Your task to perform on an android device: What's on my calendar today? Image 0: 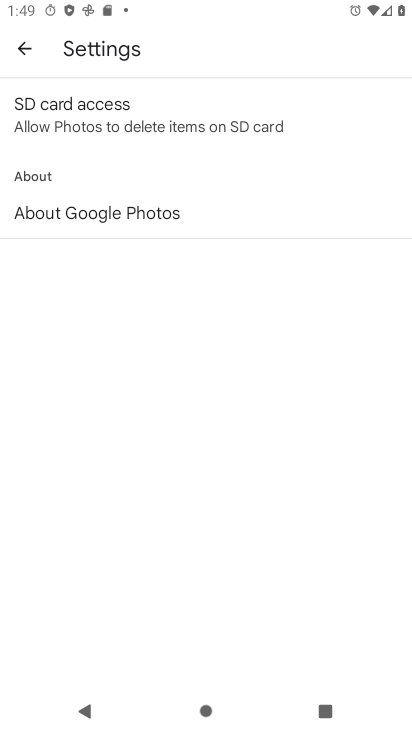
Step 0: press home button
Your task to perform on an android device: What's on my calendar today? Image 1: 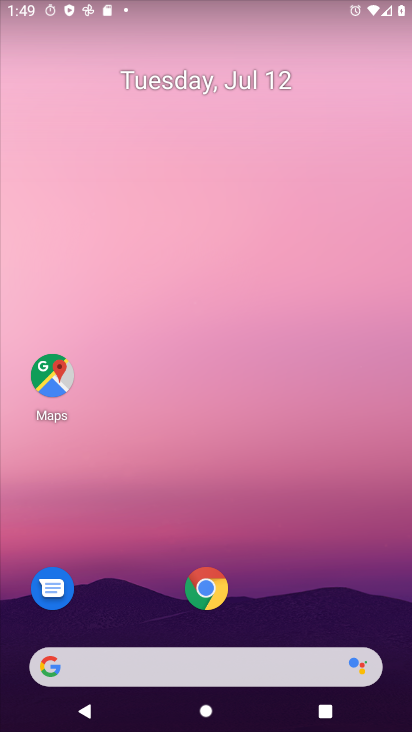
Step 1: drag from (186, 670) to (376, 120)
Your task to perform on an android device: What's on my calendar today? Image 2: 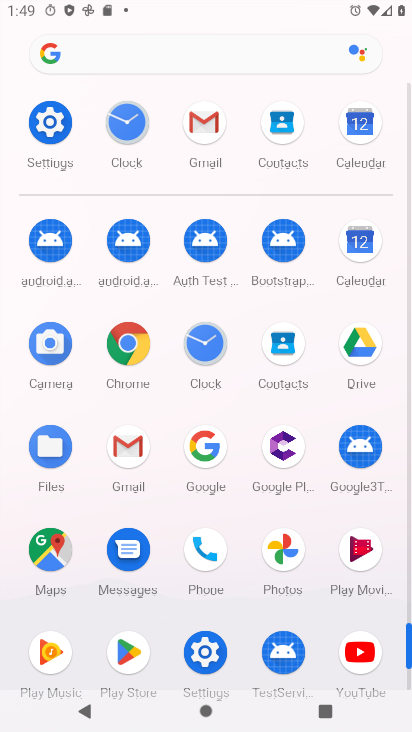
Step 2: click (365, 121)
Your task to perform on an android device: What's on my calendar today? Image 3: 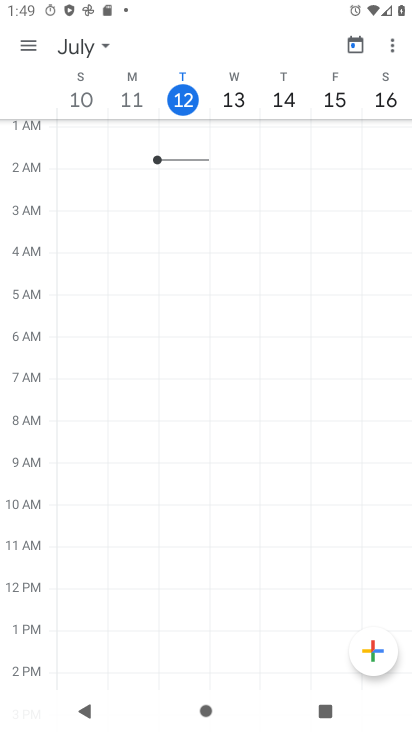
Step 3: click (64, 47)
Your task to perform on an android device: What's on my calendar today? Image 4: 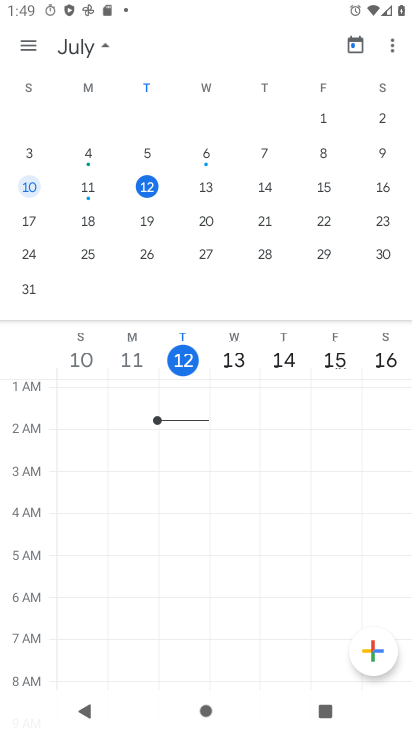
Step 4: click (150, 184)
Your task to perform on an android device: What's on my calendar today? Image 5: 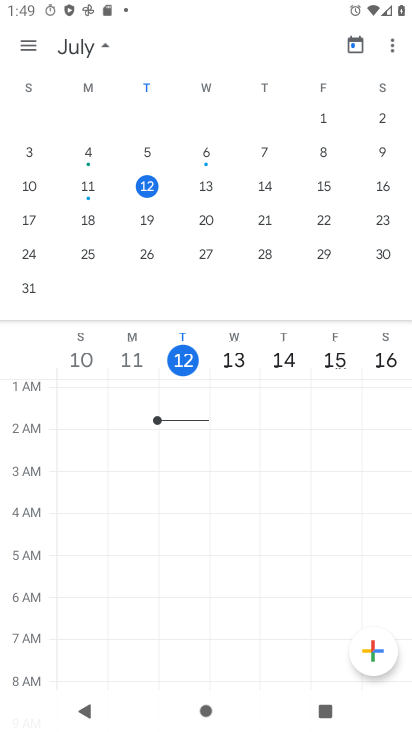
Step 5: click (25, 41)
Your task to perform on an android device: What's on my calendar today? Image 6: 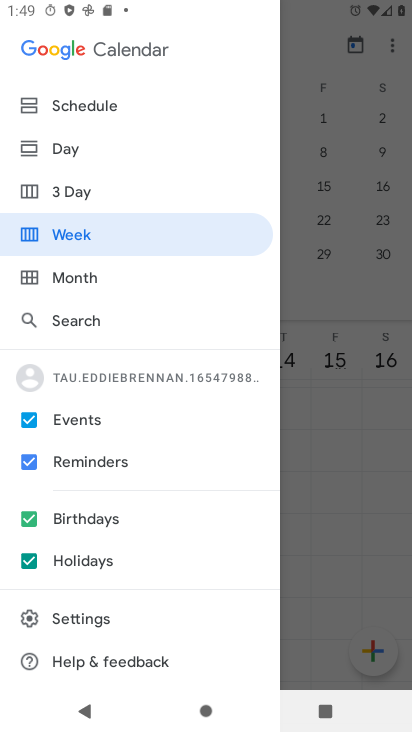
Step 6: click (85, 142)
Your task to perform on an android device: What's on my calendar today? Image 7: 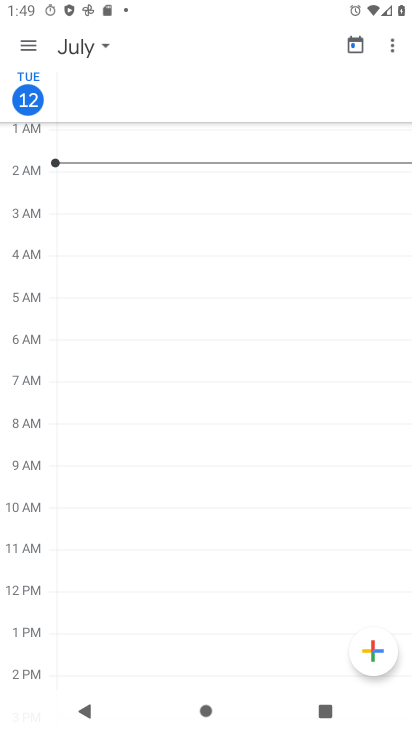
Step 7: click (32, 37)
Your task to perform on an android device: What's on my calendar today? Image 8: 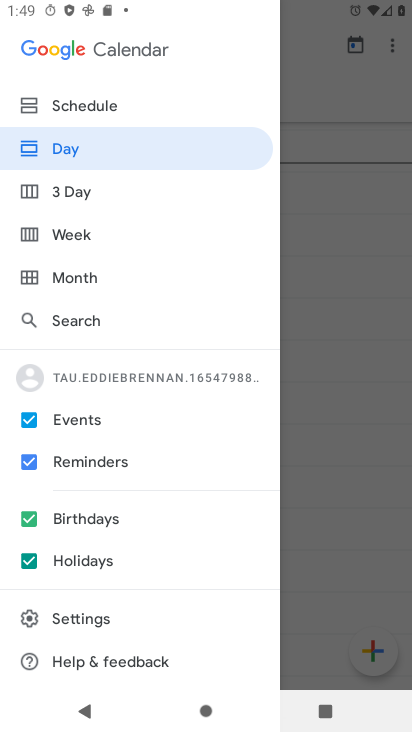
Step 8: click (56, 105)
Your task to perform on an android device: What's on my calendar today? Image 9: 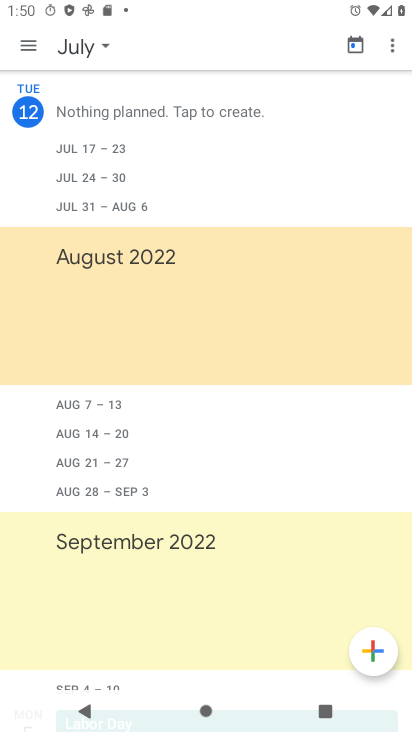
Step 9: task complete